Your task to perform on an android device: refresh tabs in the chrome app Image 0: 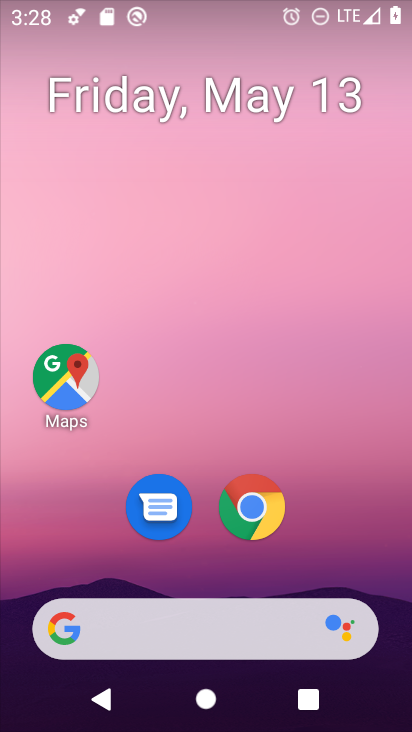
Step 0: click (266, 528)
Your task to perform on an android device: refresh tabs in the chrome app Image 1: 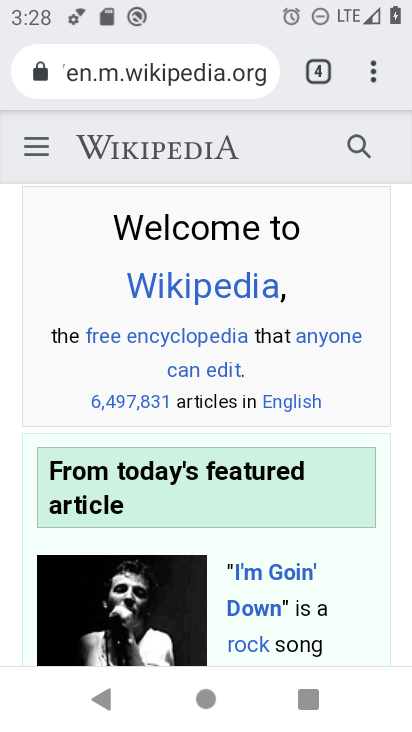
Step 1: drag from (294, 87) to (261, 630)
Your task to perform on an android device: refresh tabs in the chrome app Image 2: 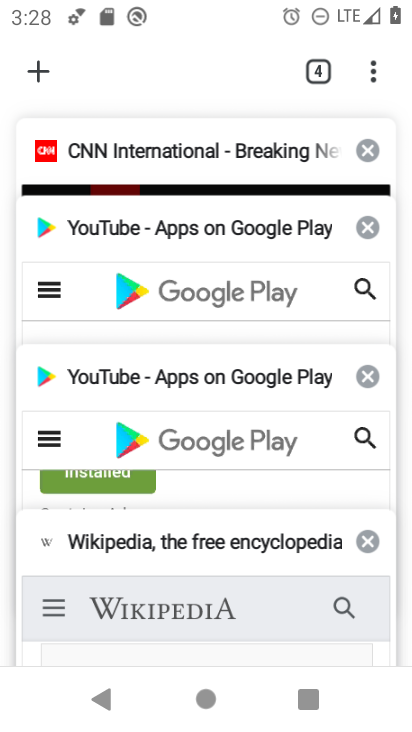
Step 2: click (171, 599)
Your task to perform on an android device: refresh tabs in the chrome app Image 3: 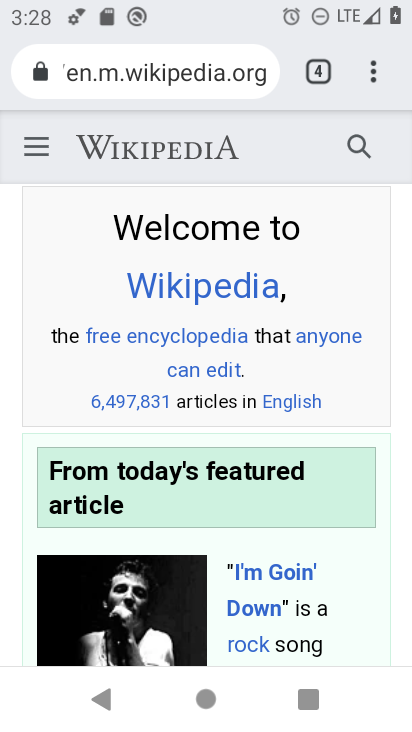
Step 3: click (258, 73)
Your task to perform on an android device: refresh tabs in the chrome app Image 4: 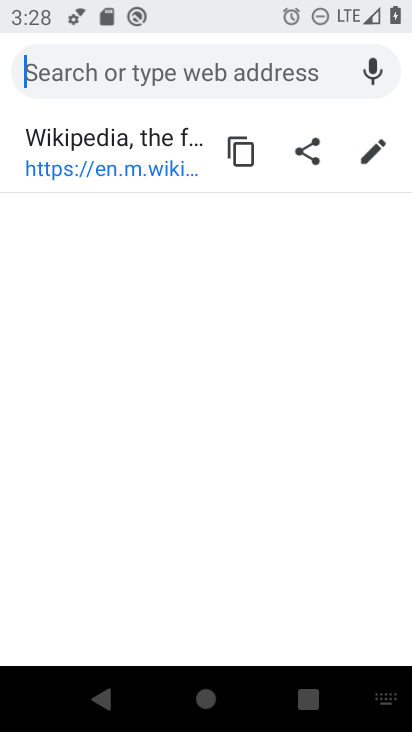
Step 4: click (258, 79)
Your task to perform on an android device: refresh tabs in the chrome app Image 5: 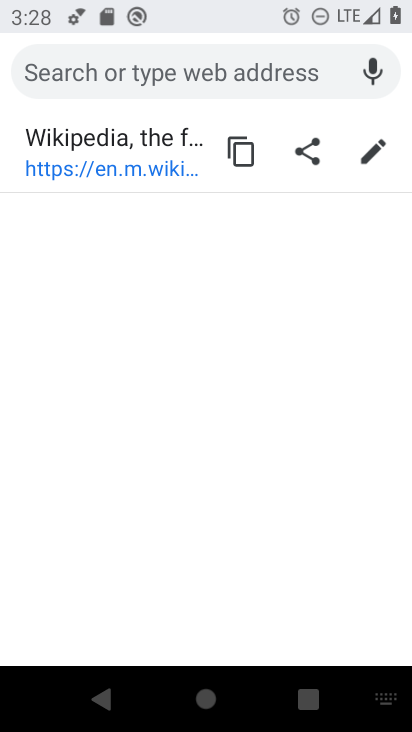
Step 5: drag from (272, 70) to (234, 391)
Your task to perform on an android device: refresh tabs in the chrome app Image 6: 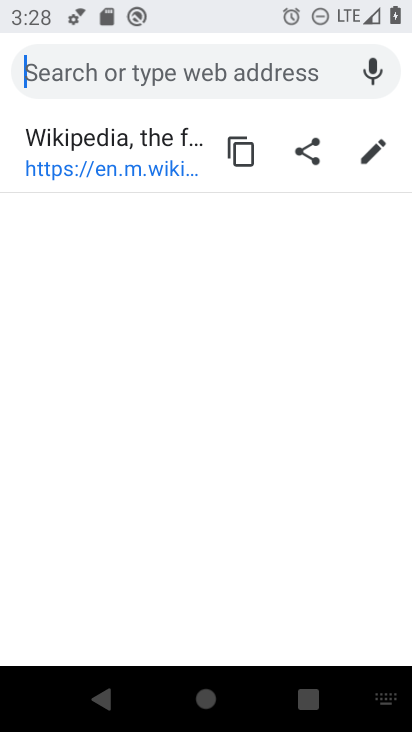
Step 6: drag from (224, 492) to (224, 152)
Your task to perform on an android device: refresh tabs in the chrome app Image 7: 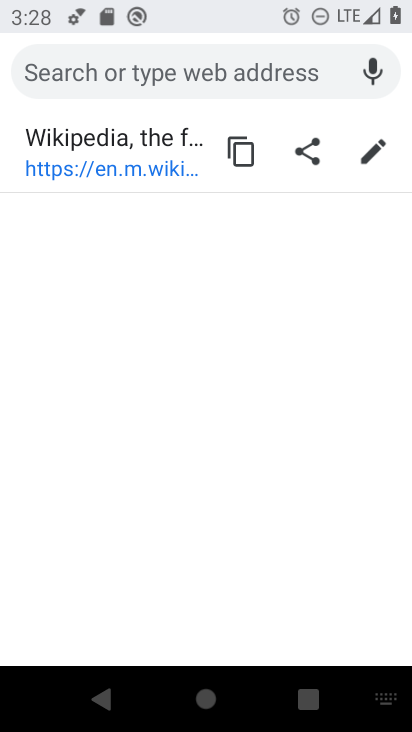
Step 7: click (164, 158)
Your task to perform on an android device: refresh tabs in the chrome app Image 8: 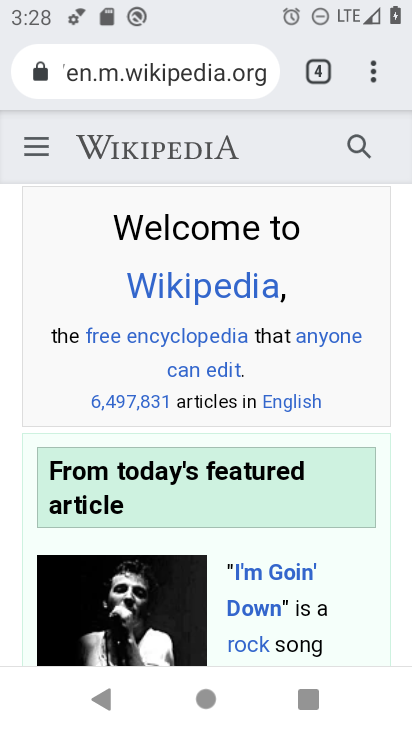
Step 8: click (375, 60)
Your task to perform on an android device: refresh tabs in the chrome app Image 9: 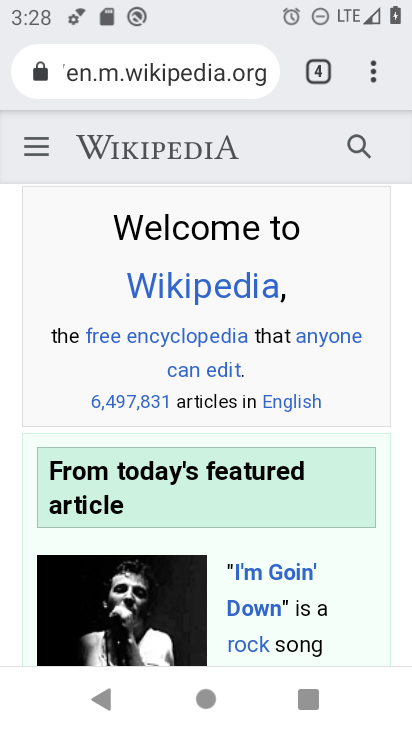
Step 9: click (373, 64)
Your task to perform on an android device: refresh tabs in the chrome app Image 10: 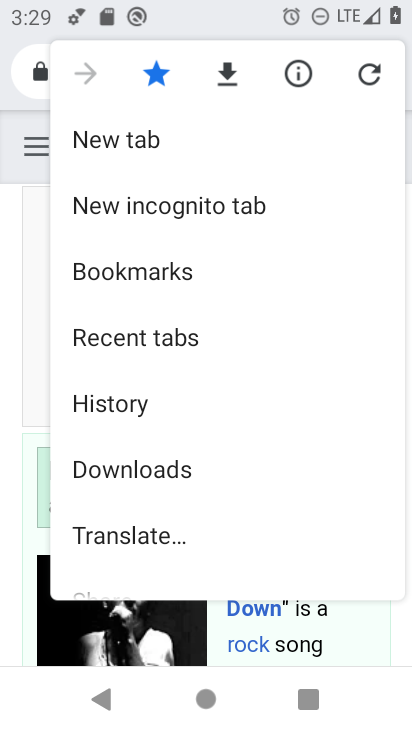
Step 10: task complete